Your task to perform on an android device: Search for pizza restaurants on Maps Image 0: 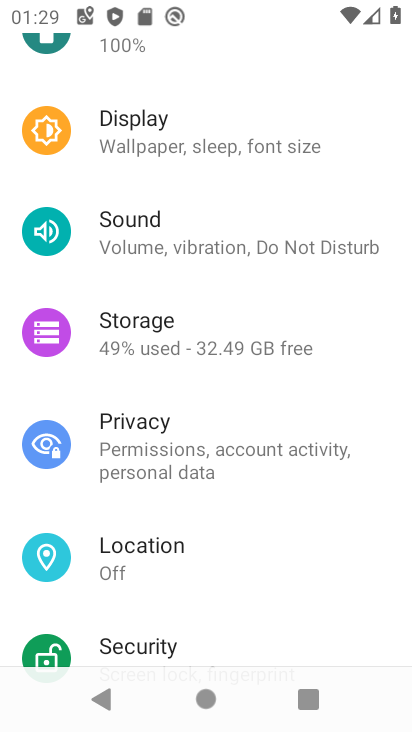
Step 0: press home button
Your task to perform on an android device: Search for pizza restaurants on Maps Image 1: 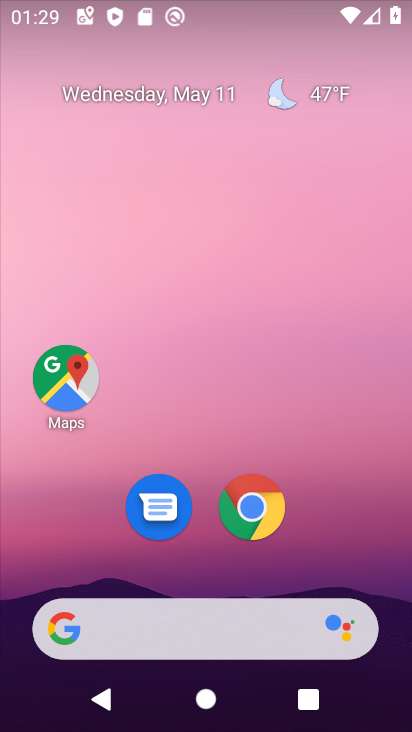
Step 1: click (60, 383)
Your task to perform on an android device: Search for pizza restaurants on Maps Image 2: 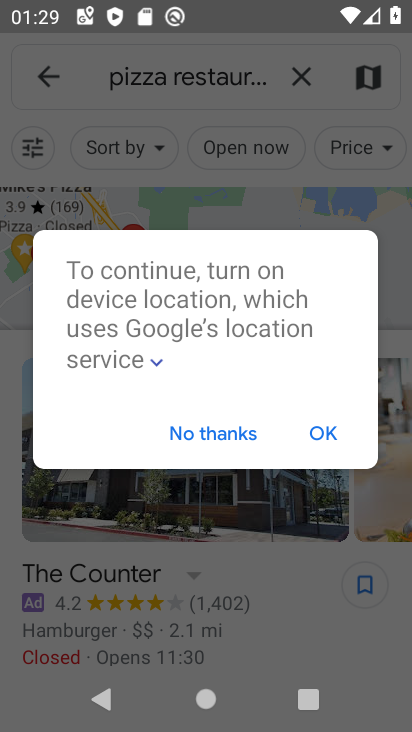
Step 2: click (326, 417)
Your task to perform on an android device: Search for pizza restaurants on Maps Image 3: 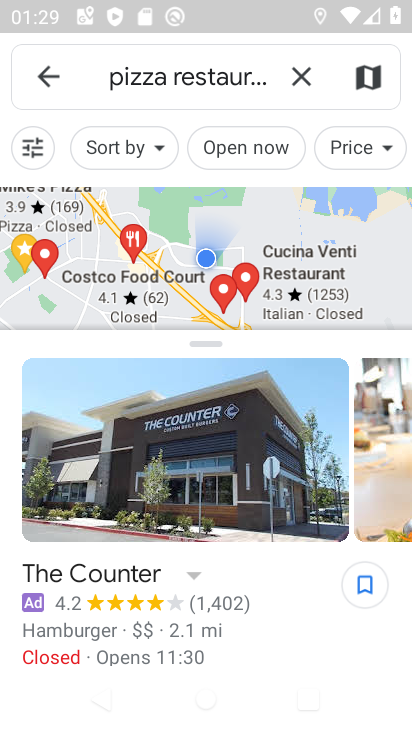
Step 3: click (301, 72)
Your task to perform on an android device: Search for pizza restaurants on Maps Image 4: 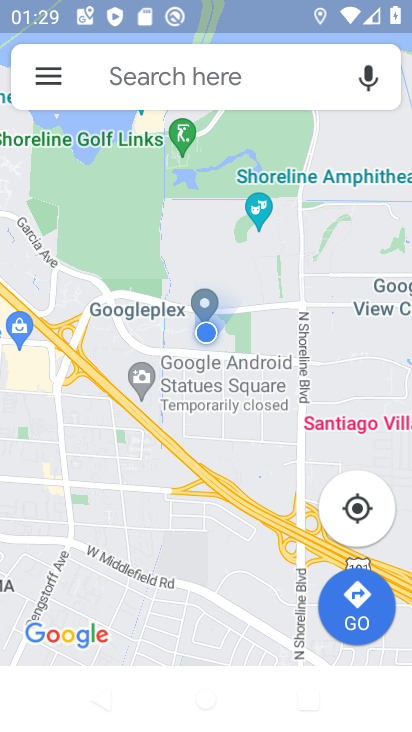
Step 4: click (221, 61)
Your task to perform on an android device: Search for pizza restaurants on Maps Image 5: 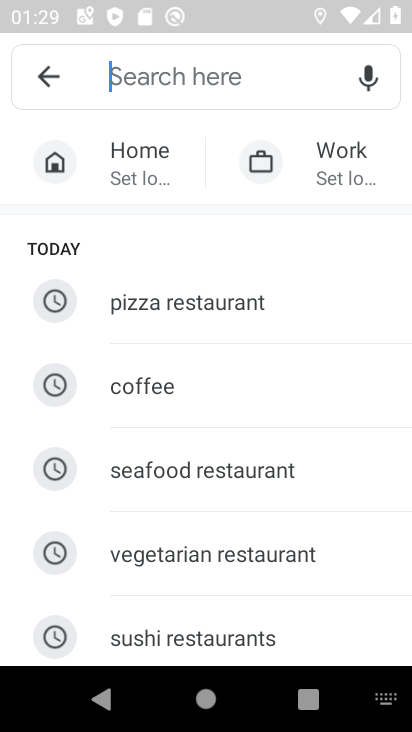
Step 5: click (154, 301)
Your task to perform on an android device: Search for pizza restaurants on Maps Image 6: 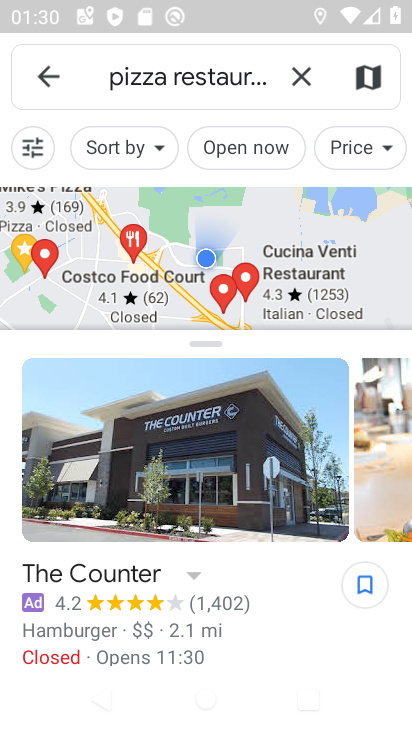
Step 6: task complete